Your task to perform on an android device: Open eBay Image 0: 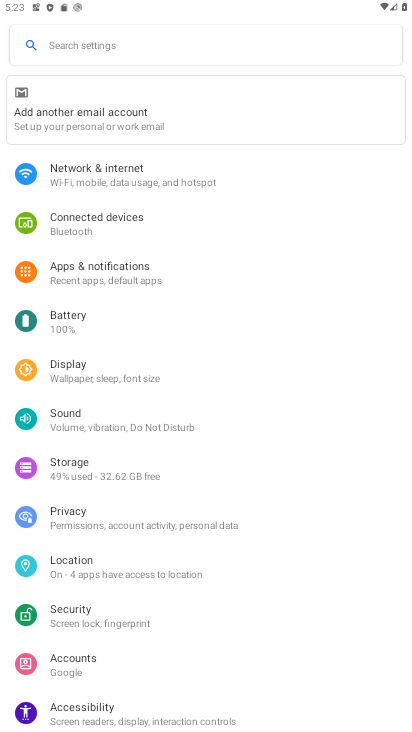
Step 0: press home button
Your task to perform on an android device: Open eBay Image 1: 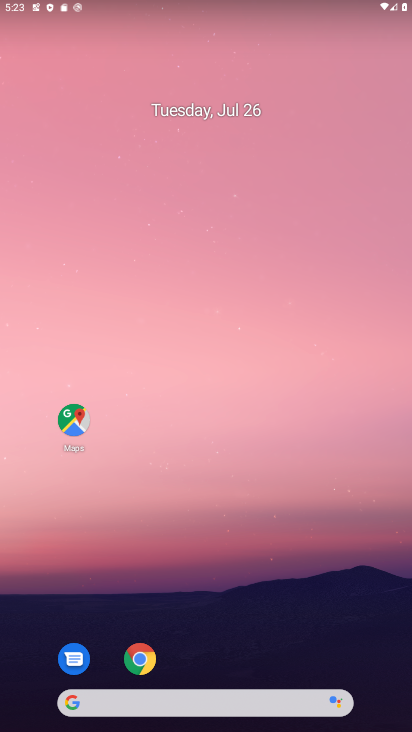
Step 1: click (131, 656)
Your task to perform on an android device: Open eBay Image 2: 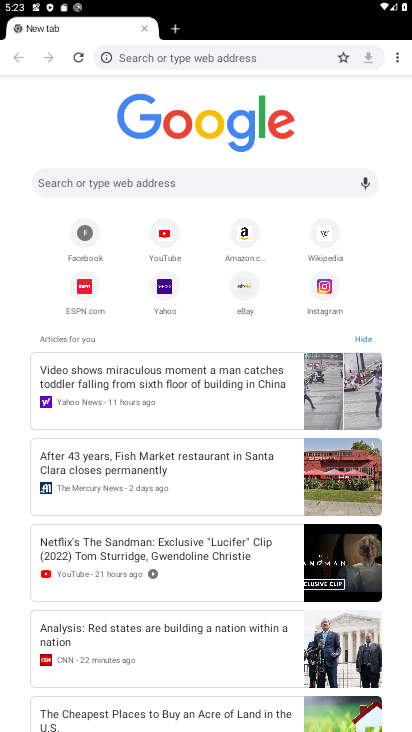
Step 2: click (241, 293)
Your task to perform on an android device: Open eBay Image 3: 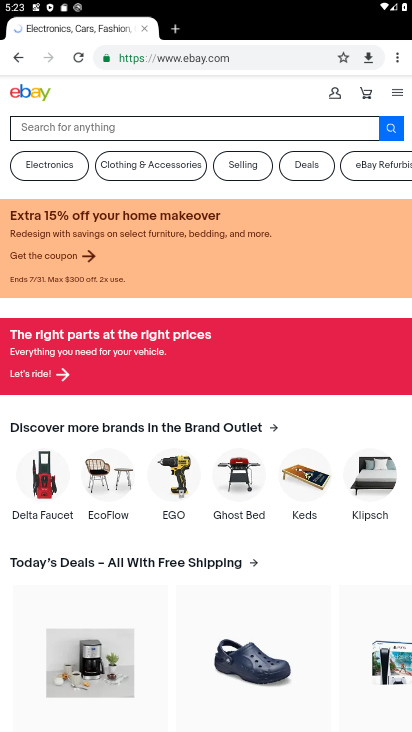
Step 3: task complete